Your task to perform on an android device: Open Chrome and go to settings Image 0: 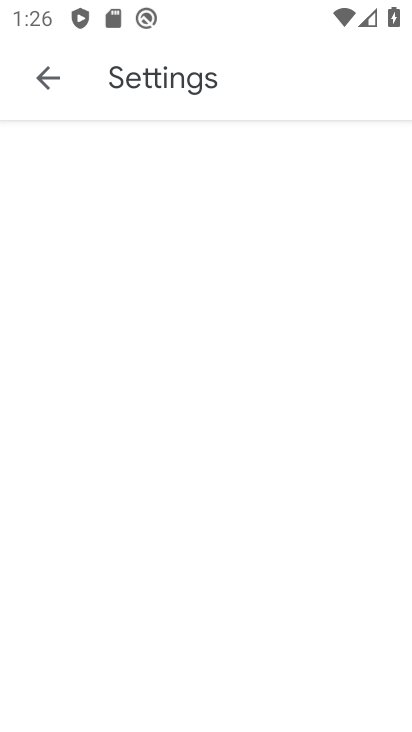
Step 0: drag from (212, 363) to (254, 83)
Your task to perform on an android device: Open Chrome and go to settings Image 1: 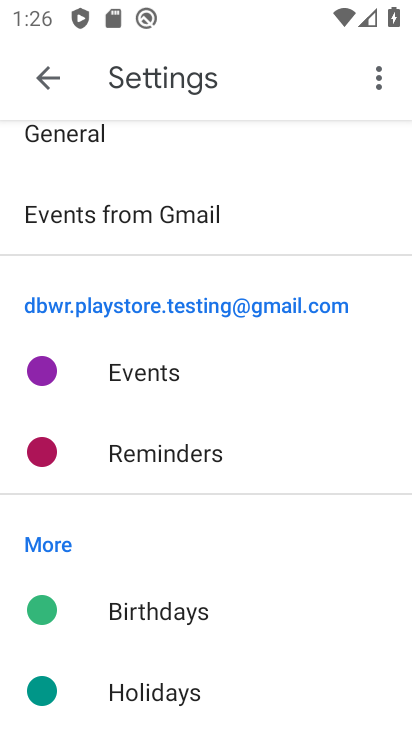
Step 1: press home button
Your task to perform on an android device: Open Chrome and go to settings Image 2: 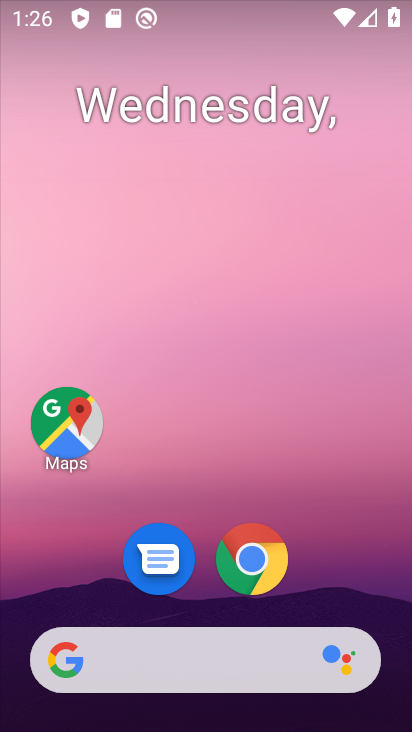
Step 2: click (256, 569)
Your task to perform on an android device: Open Chrome and go to settings Image 3: 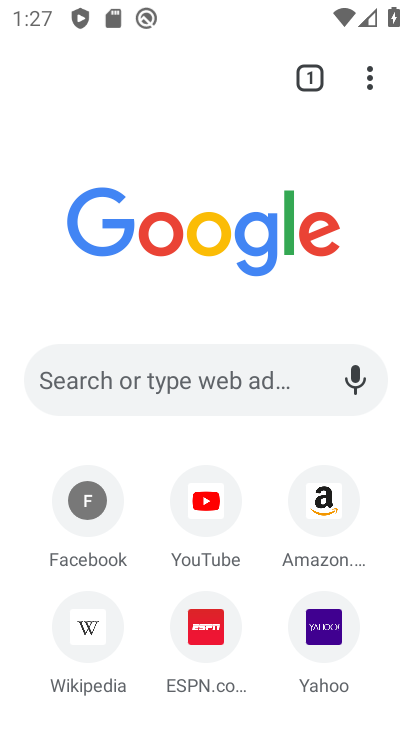
Step 3: click (368, 72)
Your task to perform on an android device: Open Chrome and go to settings Image 4: 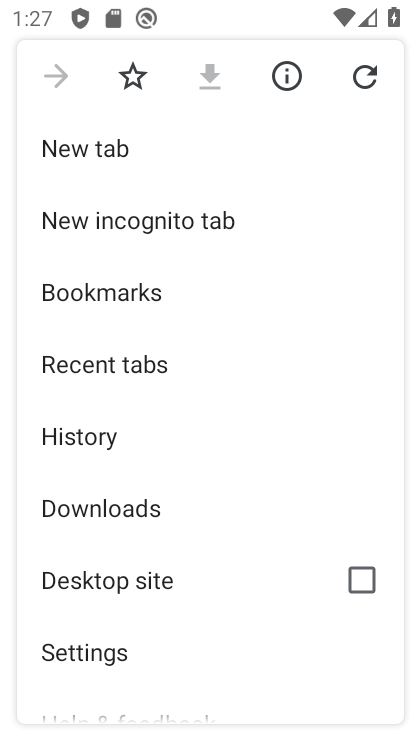
Step 4: click (115, 650)
Your task to perform on an android device: Open Chrome and go to settings Image 5: 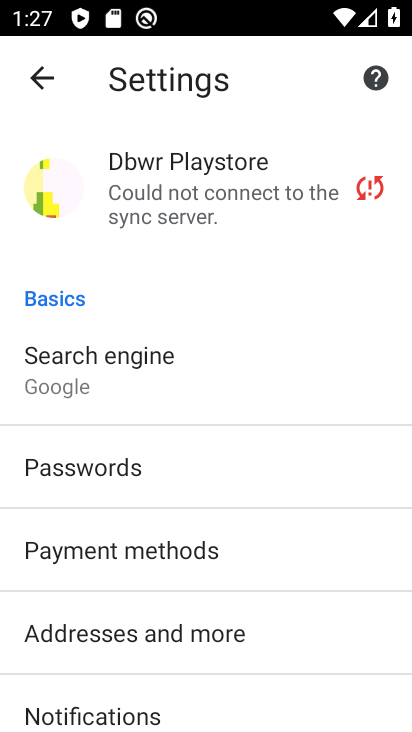
Step 5: task complete